Your task to perform on an android device: Open Chrome and go to settings Image 0: 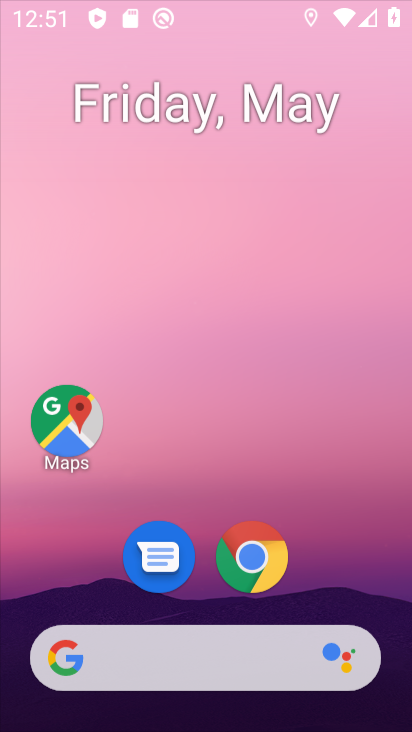
Step 0: click (262, 135)
Your task to perform on an android device: Open Chrome and go to settings Image 1: 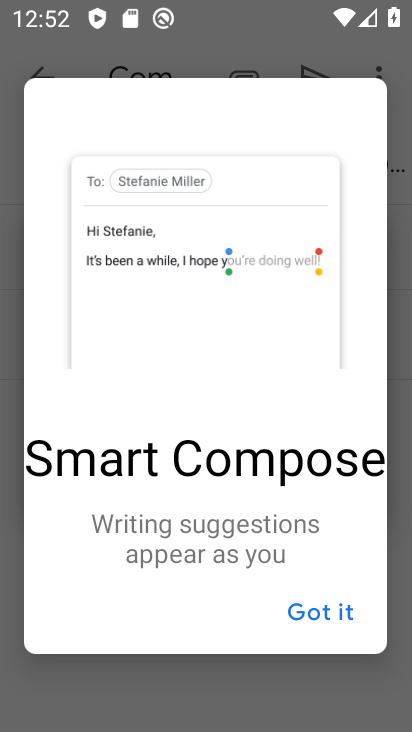
Step 1: press home button
Your task to perform on an android device: Open Chrome and go to settings Image 2: 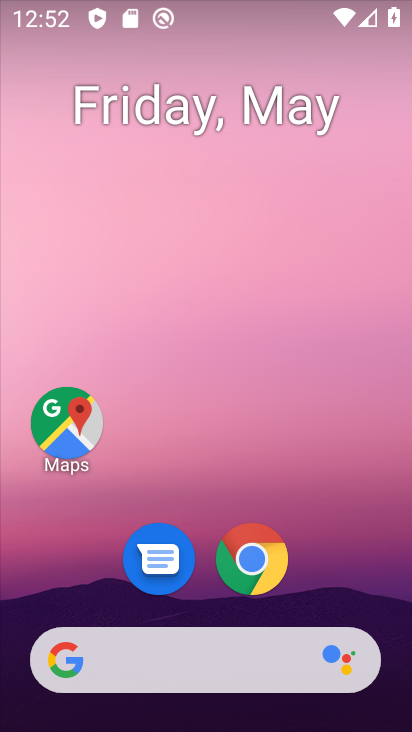
Step 2: drag from (318, 568) to (231, 146)
Your task to perform on an android device: Open Chrome and go to settings Image 3: 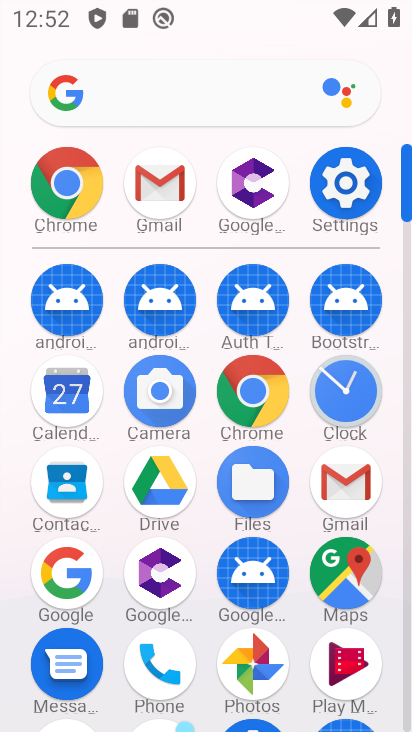
Step 3: click (254, 390)
Your task to perform on an android device: Open Chrome and go to settings Image 4: 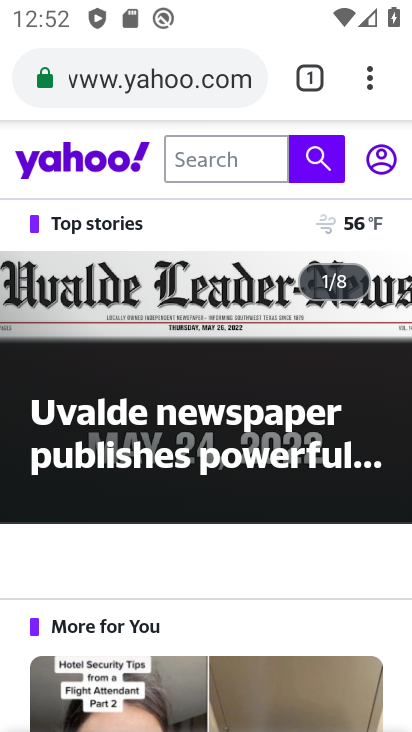
Step 4: task complete